Your task to perform on an android device: turn off smart reply in the gmail app Image 0: 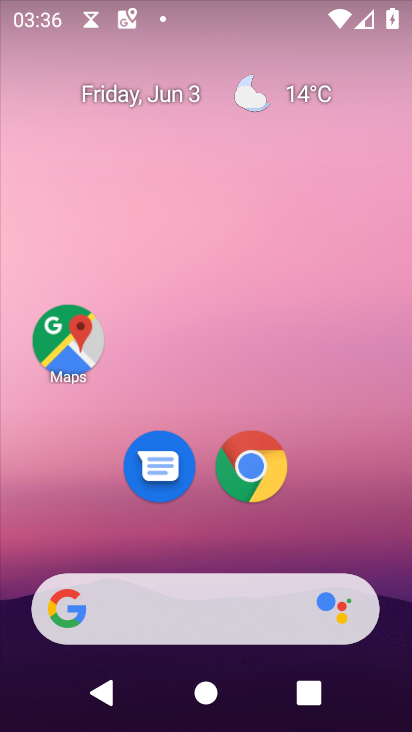
Step 0: press home button
Your task to perform on an android device: turn off smart reply in the gmail app Image 1: 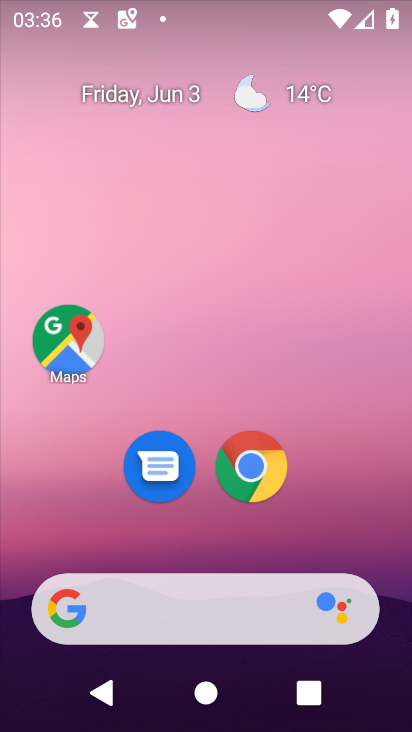
Step 1: drag from (201, 537) to (241, 3)
Your task to perform on an android device: turn off smart reply in the gmail app Image 2: 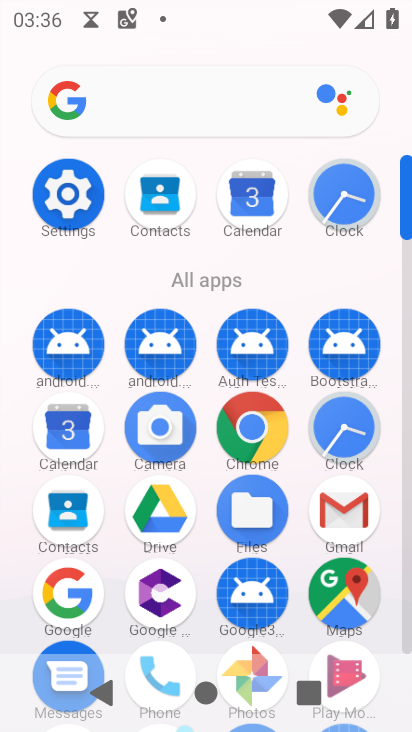
Step 2: click (341, 501)
Your task to perform on an android device: turn off smart reply in the gmail app Image 3: 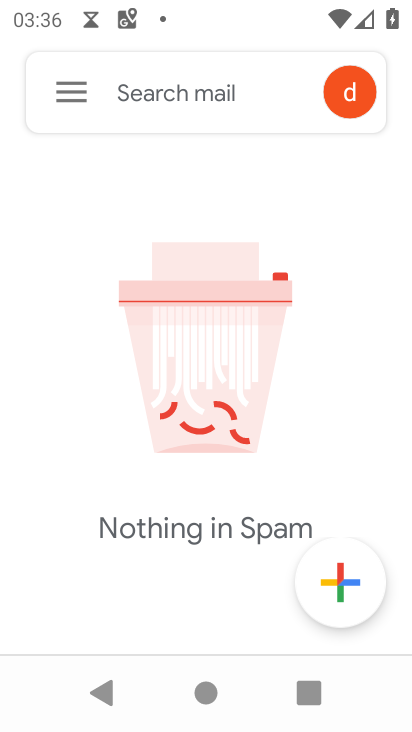
Step 3: click (68, 91)
Your task to perform on an android device: turn off smart reply in the gmail app Image 4: 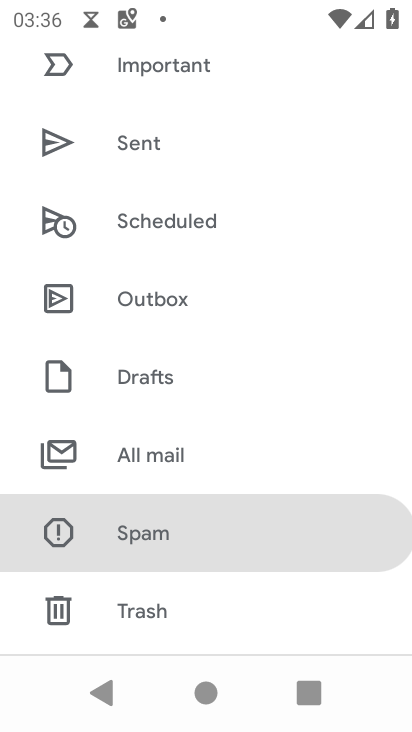
Step 4: drag from (204, 581) to (218, 140)
Your task to perform on an android device: turn off smart reply in the gmail app Image 5: 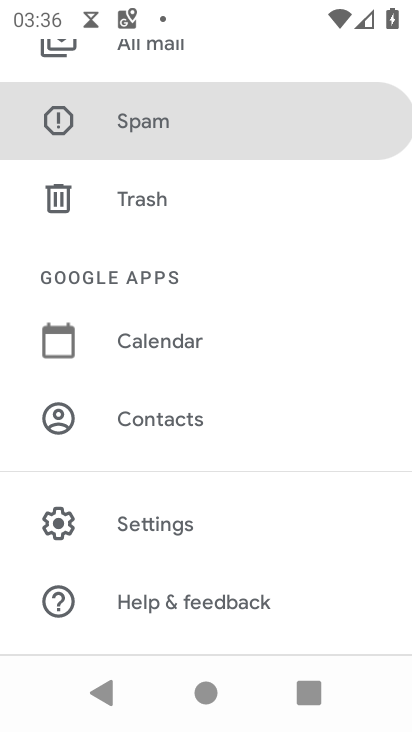
Step 5: click (209, 521)
Your task to perform on an android device: turn off smart reply in the gmail app Image 6: 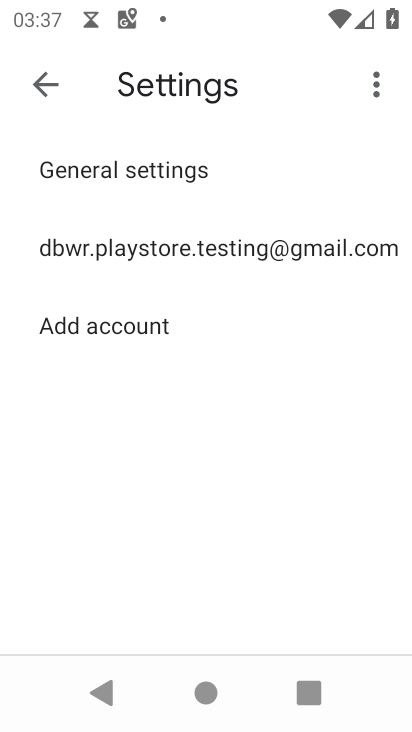
Step 6: click (226, 248)
Your task to perform on an android device: turn off smart reply in the gmail app Image 7: 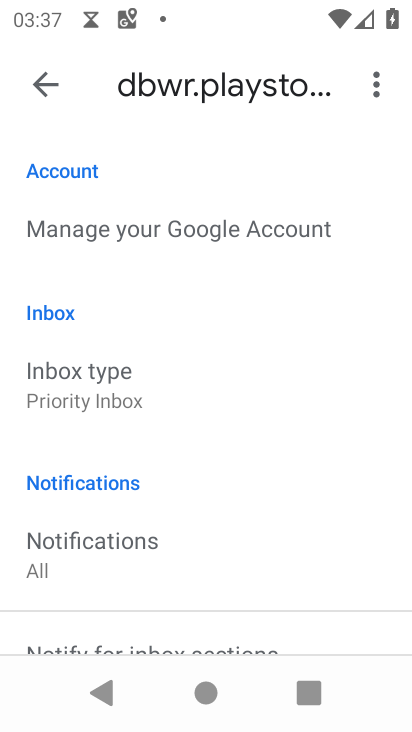
Step 7: drag from (150, 594) to (192, 97)
Your task to perform on an android device: turn off smart reply in the gmail app Image 8: 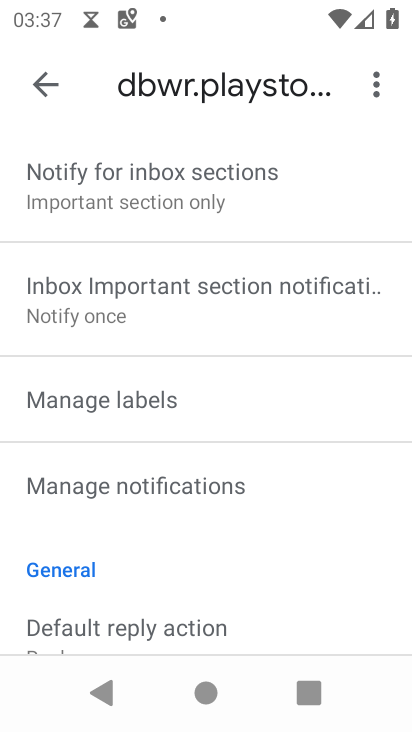
Step 8: drag from (175, 588) to (243, 99)
Your task to perform on an android device: turn off smart reply in the gmail app Image 9: 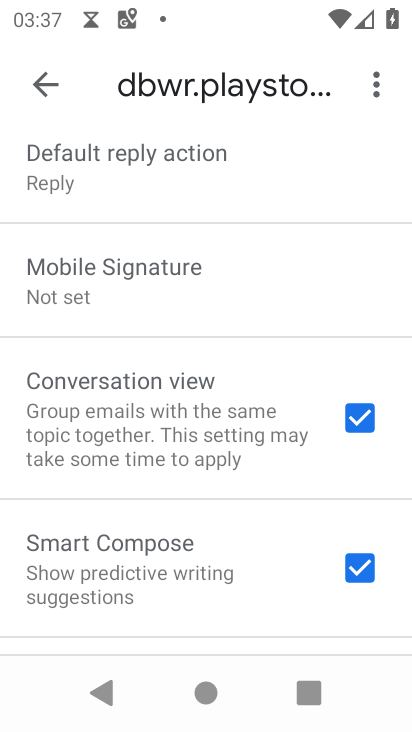
Step 9: drag from (163, 561) to (190, 191)
Your task to perform on an android device: turn off smart reply in the gmail app Image 10: 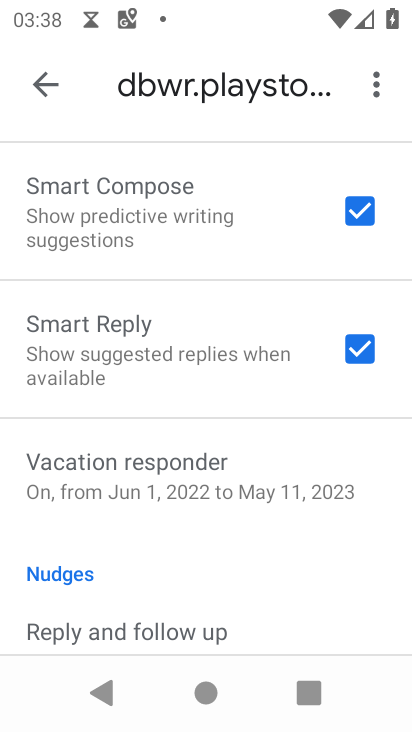
Step 10: click (358, 343)
Your task to perform on an android device: turn off smart reply in the gmail app Image 11: 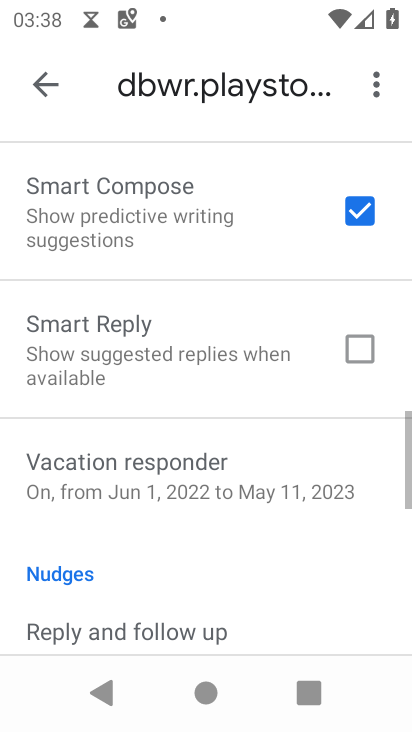
Step 11: task complete